Your task to perform on an android device: open chrome privacy settings Image 0: 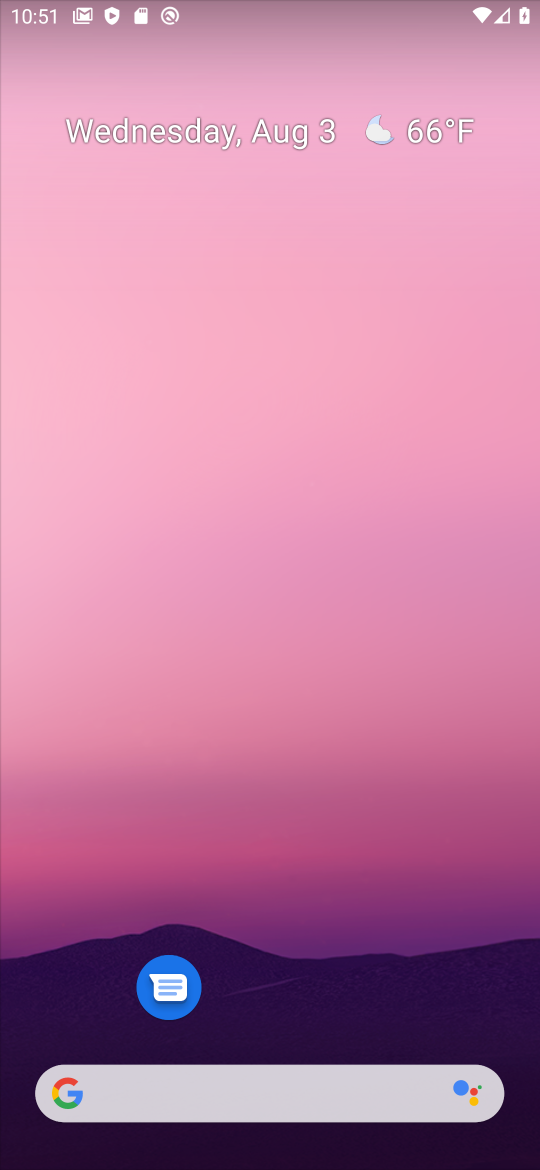
Step 0: press back button
Your task to perform on an android device: open chrome privacy settings Image 1: 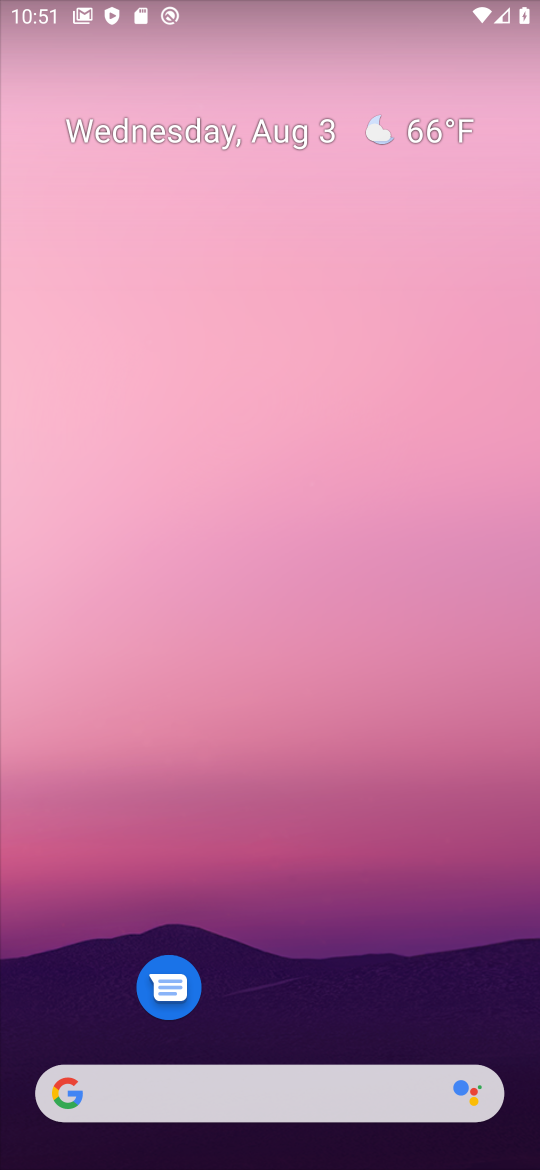
Step 1: press back button
Your task to perform on an android device: open chrome privacy settings Image 2: 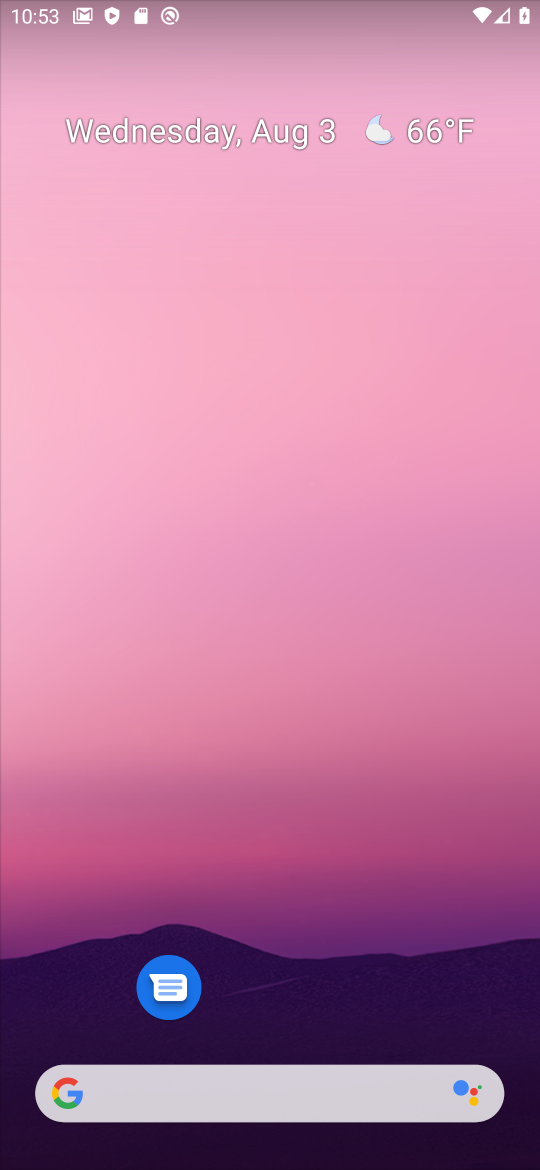
Step 2: click (226, 140)
Your task to perform on an android device: open chrome privacy settings Image 3: 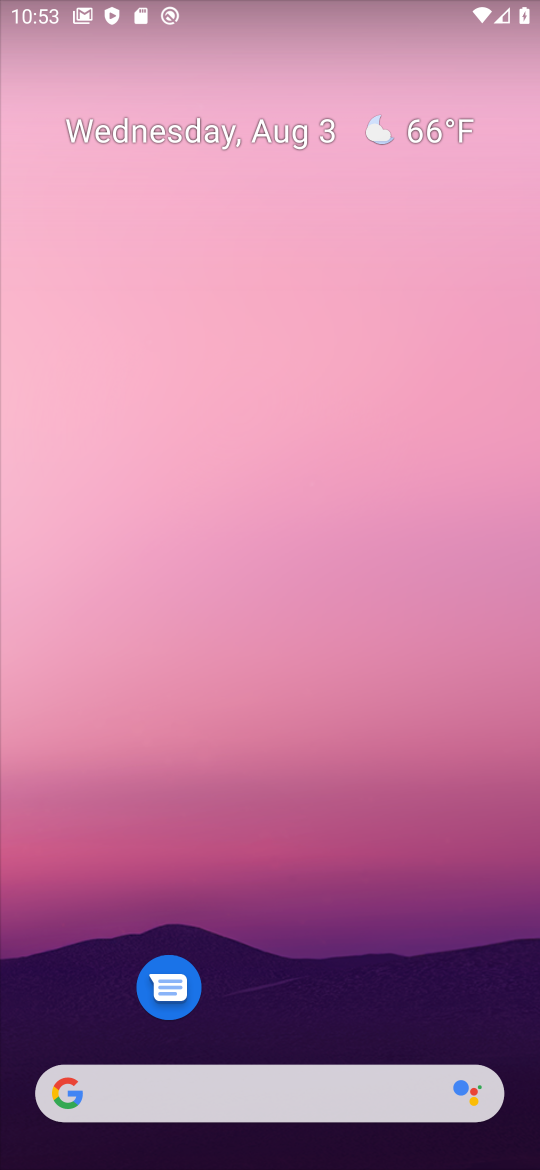
Step 3: drag from (223, 8) to (127, 246)
Your task to perform on an android device: open chrome privacy settings Image 4: 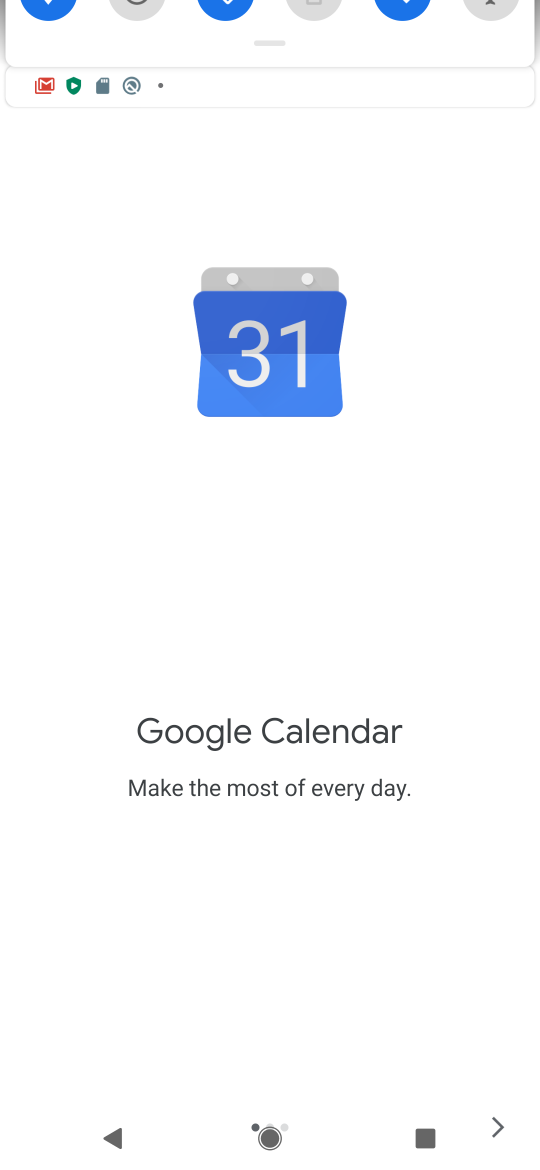
Step 4: drag from (296, 839) to (203, 227)
Your task to perform on an android device: open chrome privacy settings Image 5: 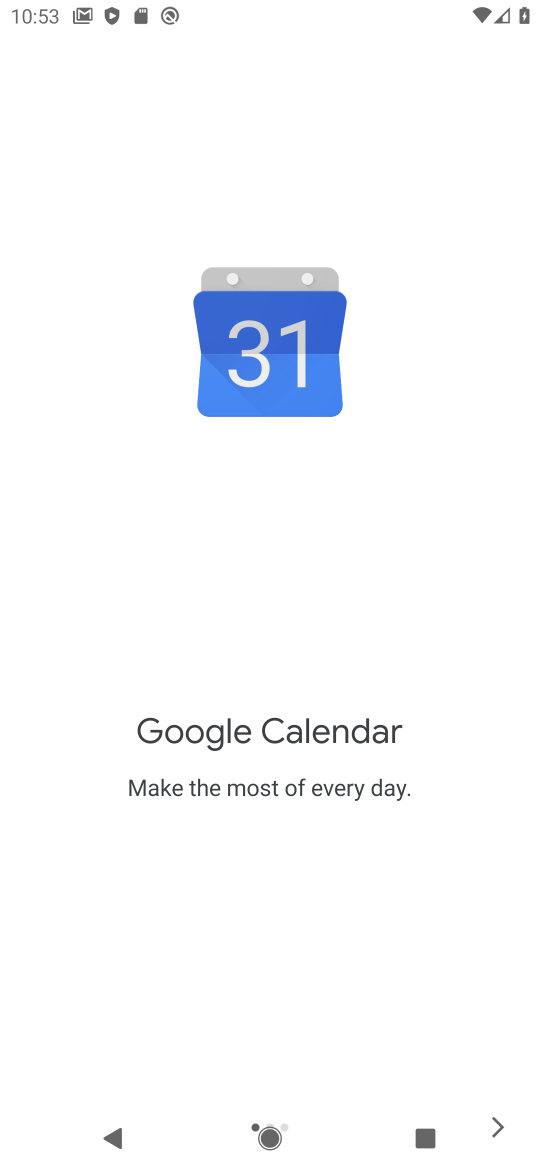
Step 5: drag from (379, 584) to (238, 46)
Your task to perform on an android device: open chrome privacy settings Image 6: 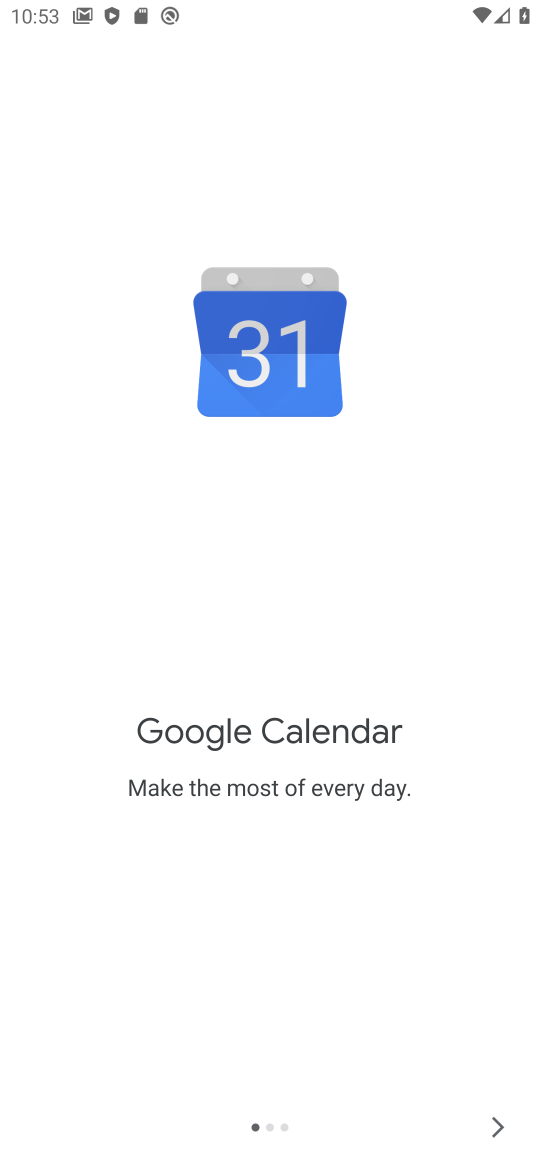
Step 6: press back button
Your task to perform on an android device: open chrome privacy settings Image 7: 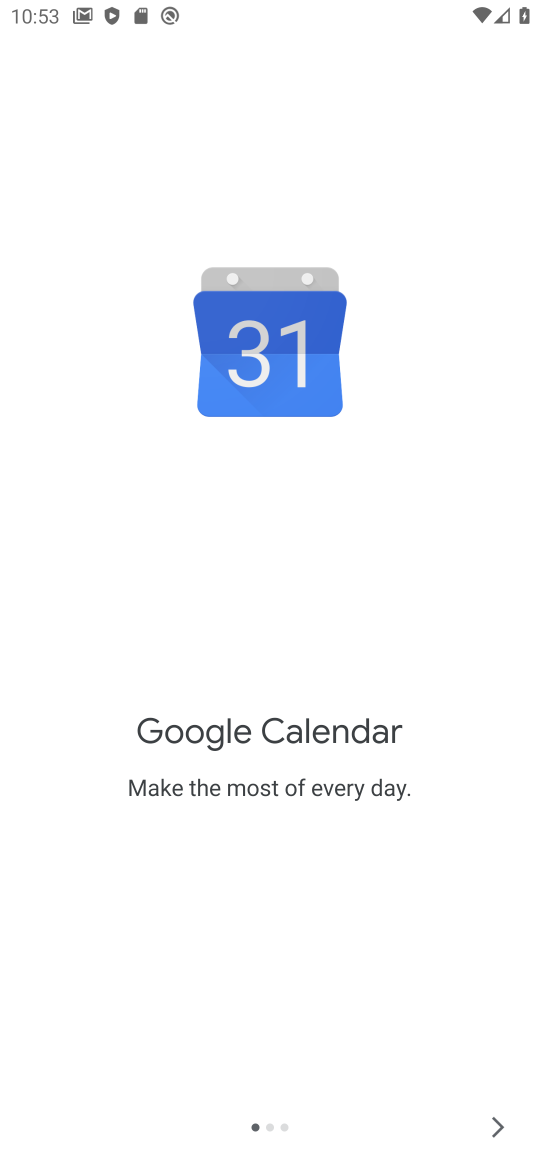
Step 7: press back button
Your task to perform on an android device: open chrome privacy settings Image 8: 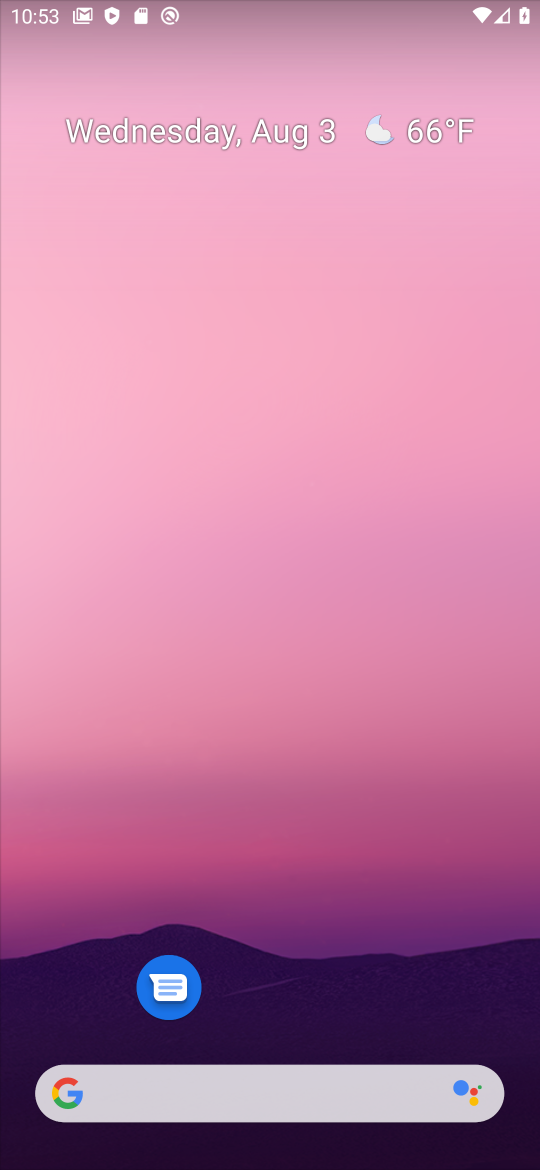
Step 8: press back button
Your task to perform on an android device: open chrome privacy settings Image 9: 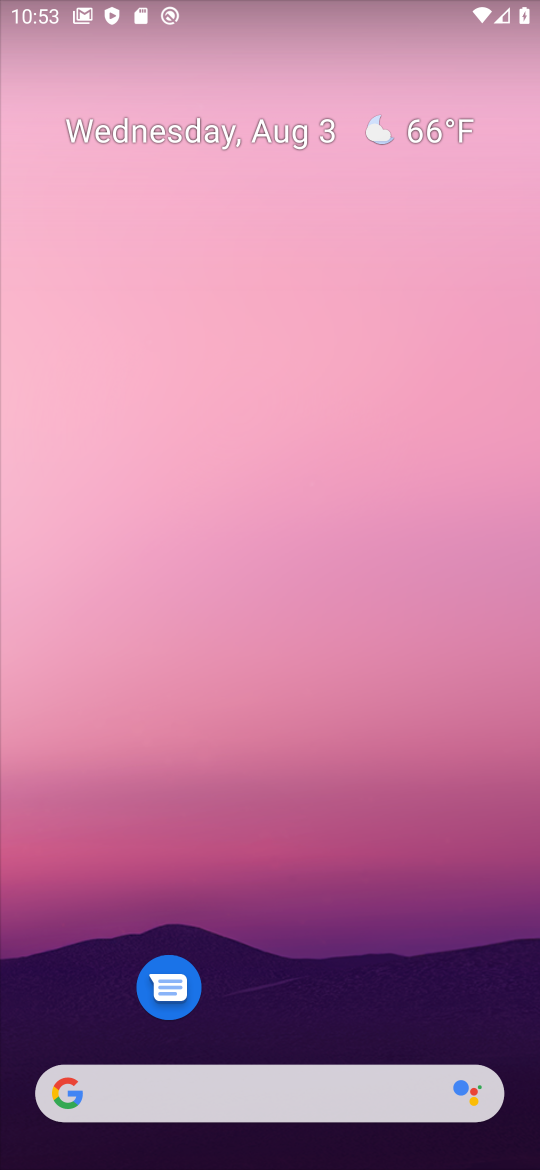
Step 9: press home button
Your task to perform on an android device: open chrome privacy settings Image 10: 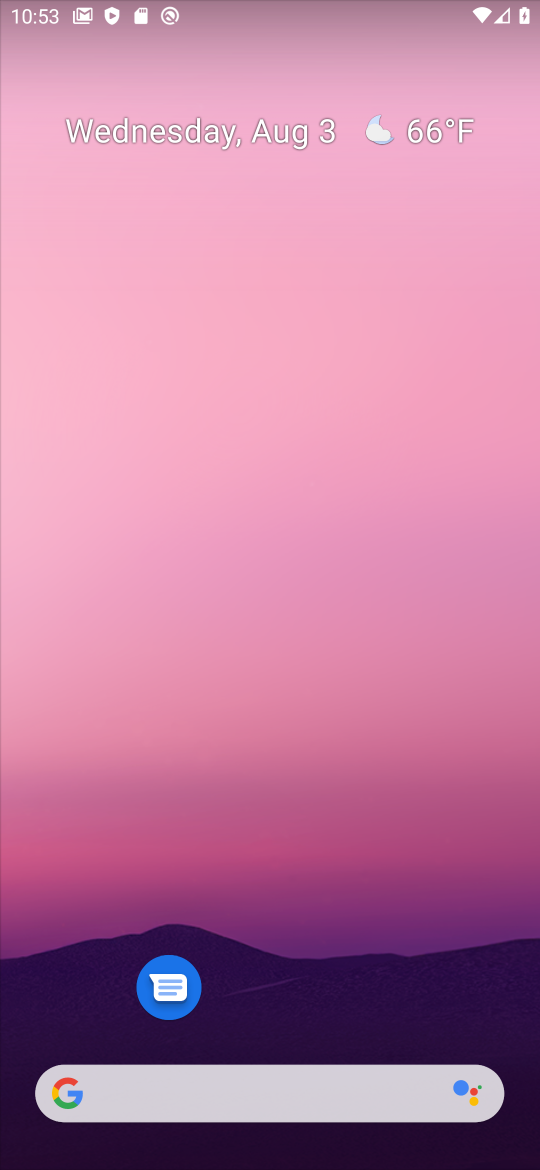
Step 10: drag from (293, 868) to (100, 110)
Your task to perform on an android device: open chrome privacy settings Image 11: 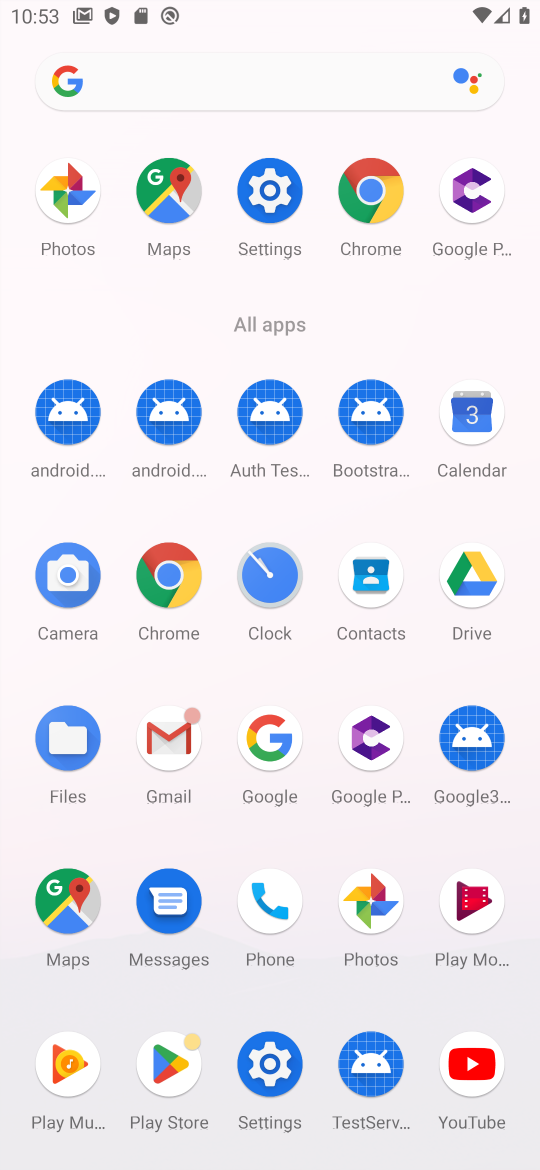
Step 11: click (267, 187)
Your task to perform on an android device: open chrome privacy settings Image 12: 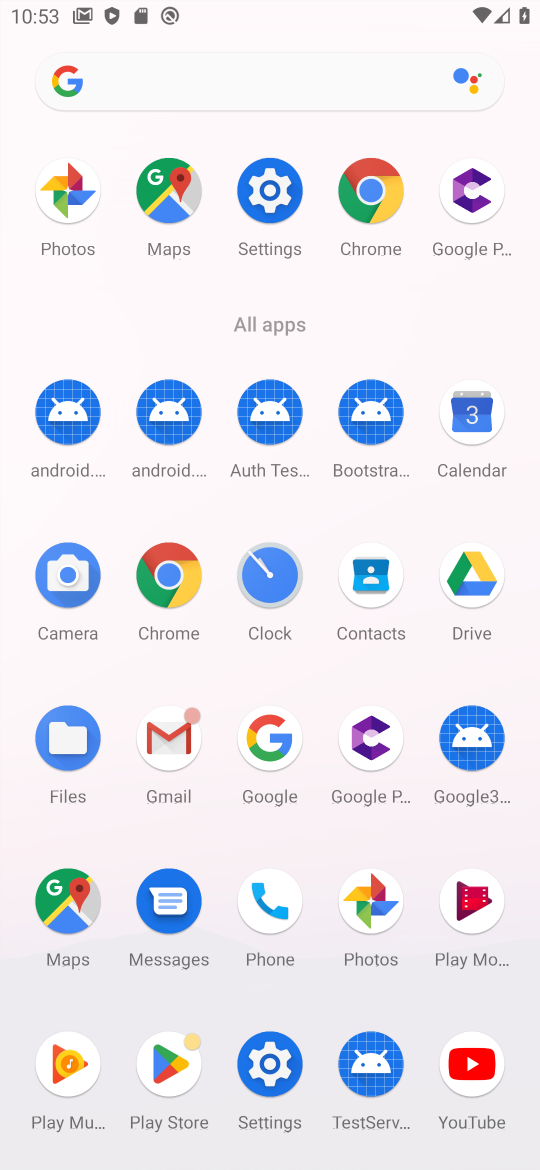
Step 12: click (264, 187)
Your task to perform on an android device: open chrome privacy settings Image 13: 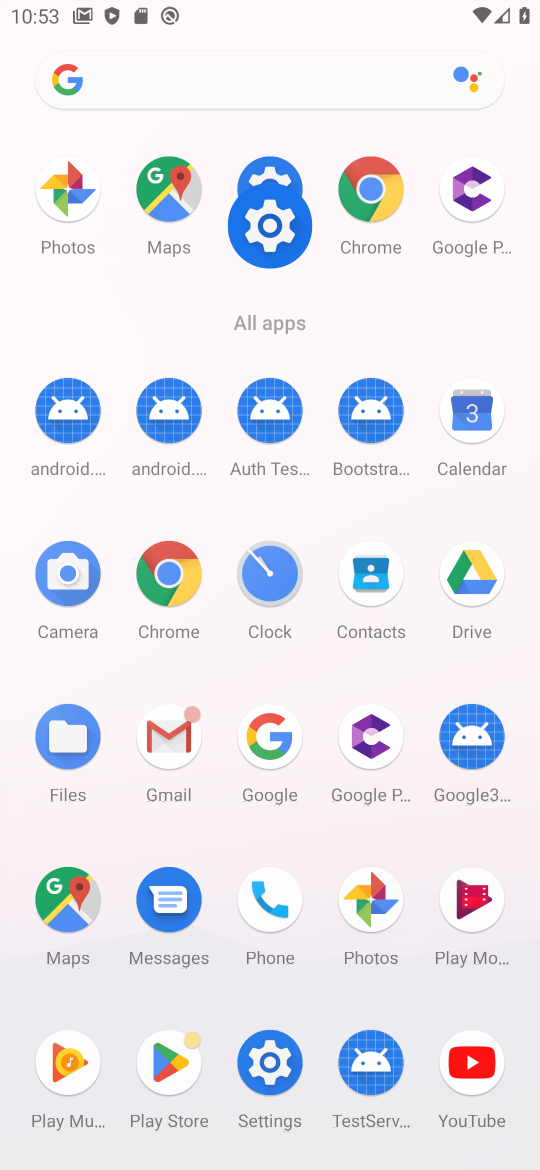
Step 13: click (264, 187)
Your task to perform on an android device: open chrome privacy settings Image 14: 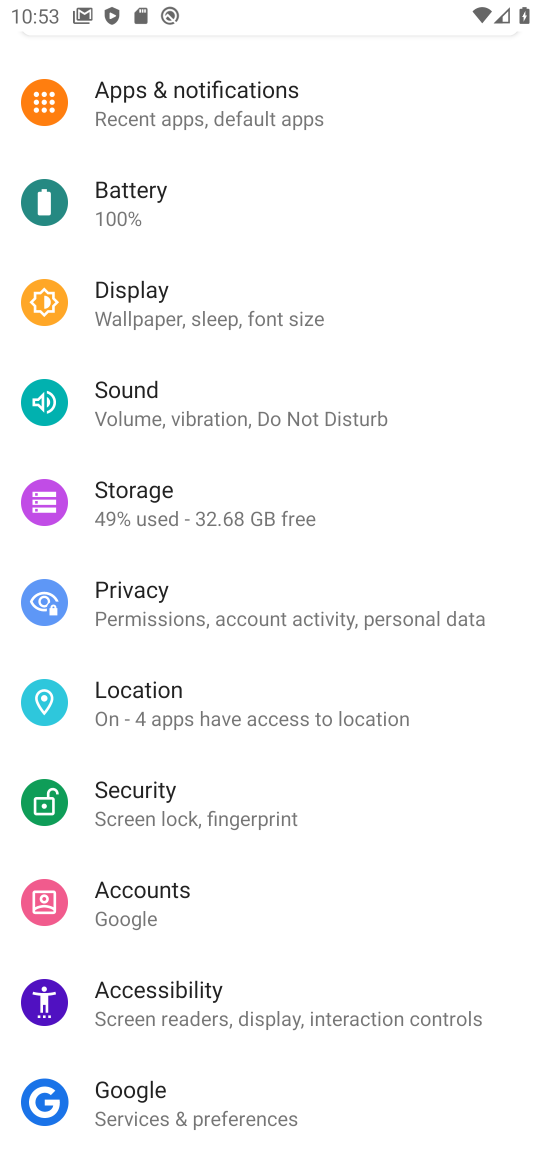
Step 14: click (153, 603)
Your task to perform on an android device: open chrome privacy settings Image 15: 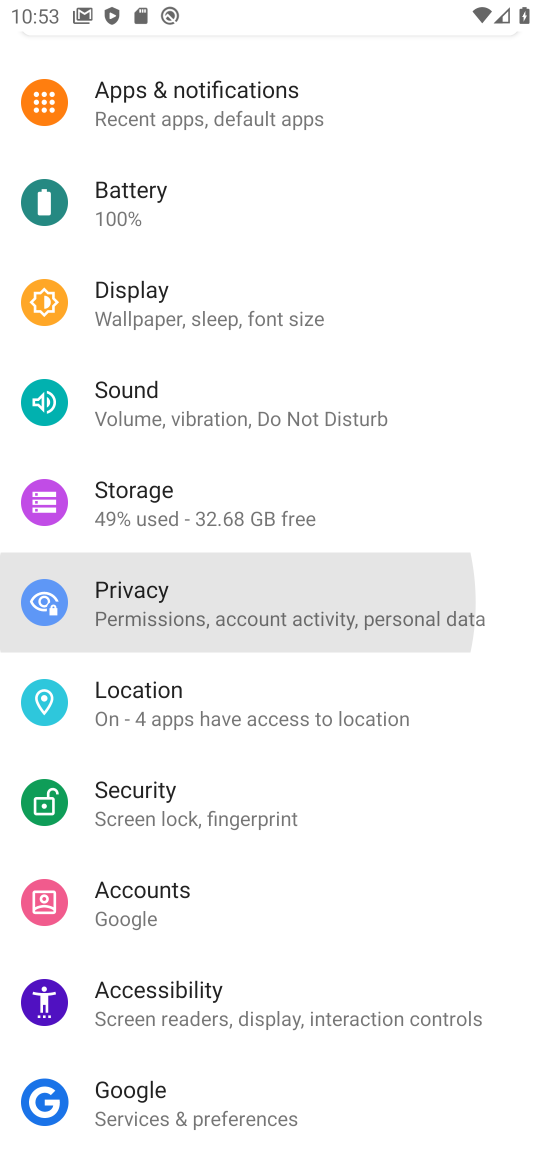
Step 15: click (153, 603)
Your task to perform on an android device: open chrome privacy settings Image 16: 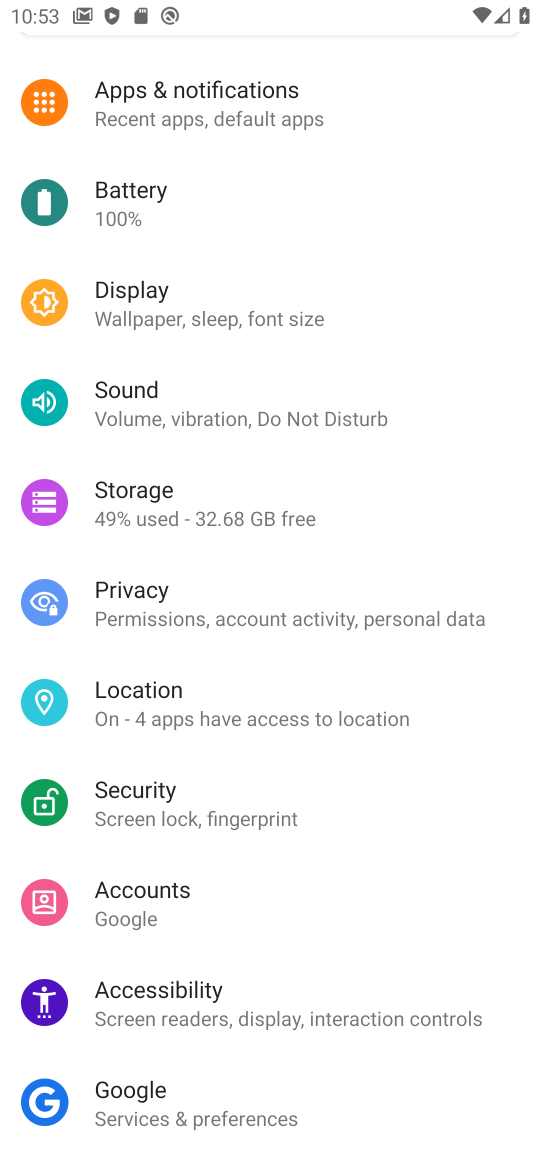
Step 16: click (153, 603)
Your task to perform on an android device: open chrome privacy settings Image 17: 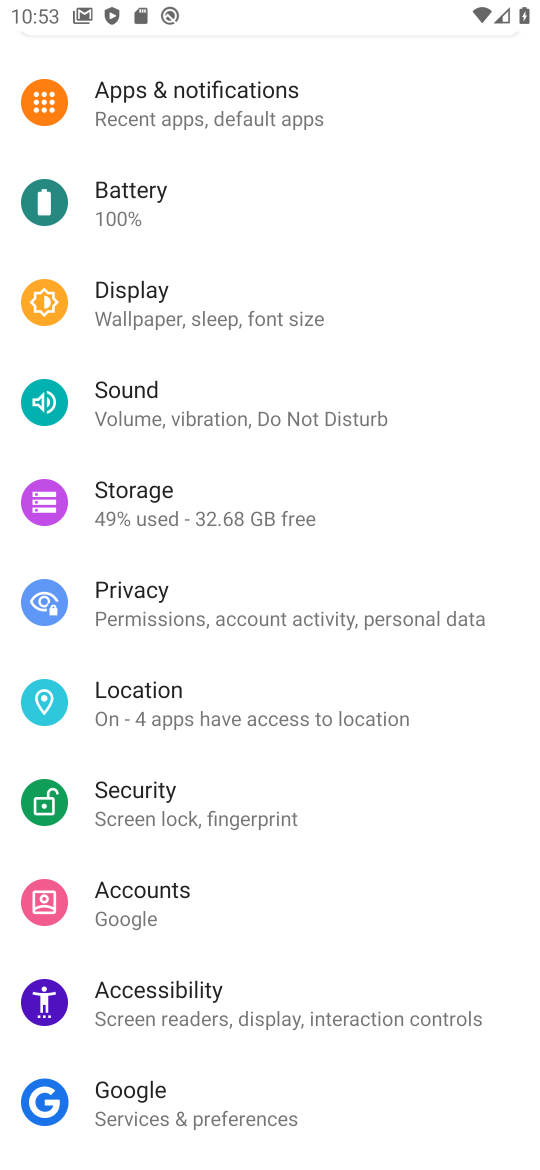
Step 17: click (155, 601)
Your task to perform on an android device: open chrome privacy settings Image 18: 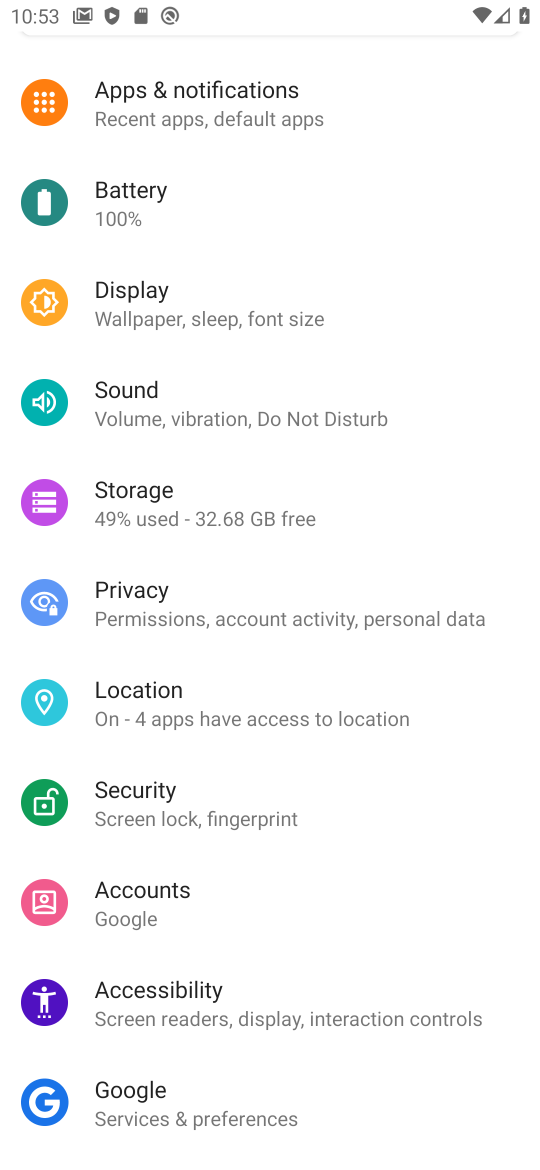
Step 18: click (155, 601)
Your task to perform on an android device: open chrome privacy settings Image 19: 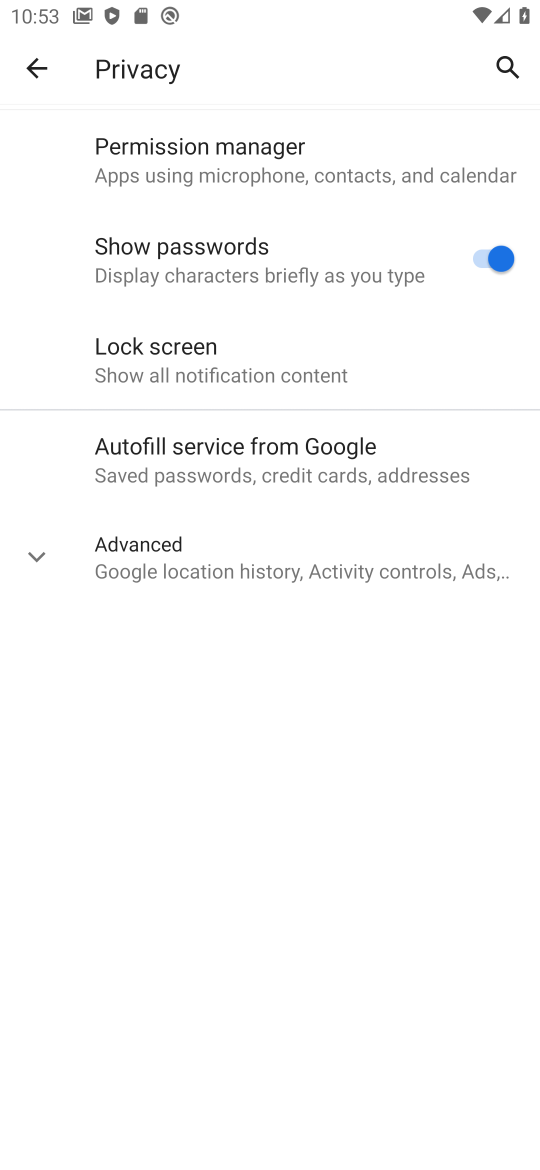
Step 19: task complete